Your task to perform on an android device: toggle translation in the chrome app Image 0: 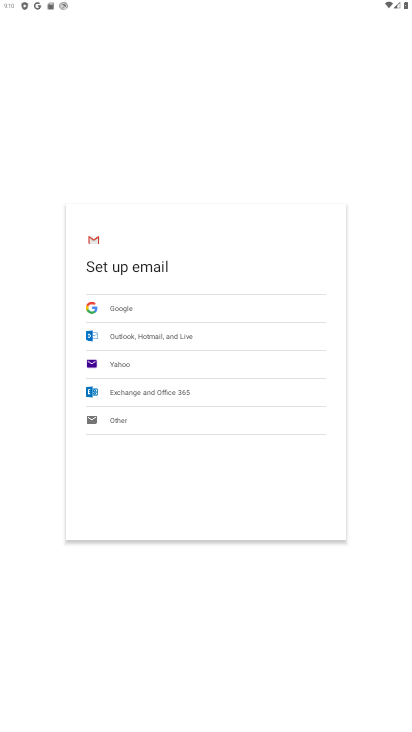
Step 0: press home button
Your task to perform on an android device: toggle translation in the chrome app Image 1: 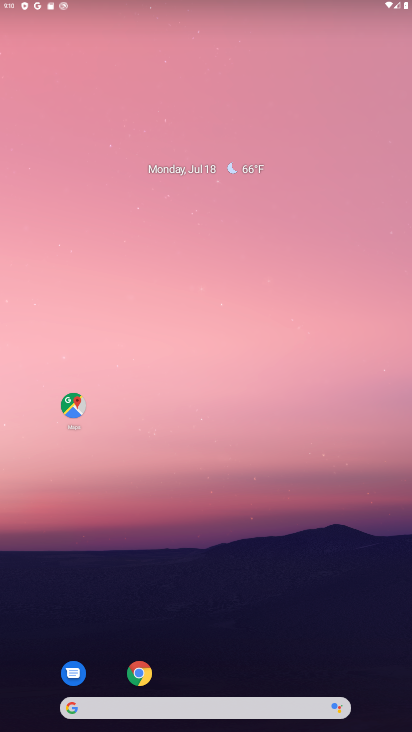
Step 1: drag from (177, 677) to (211, 120)
Your task to perform on an android device: toggle translation in the chrome app Image 2: 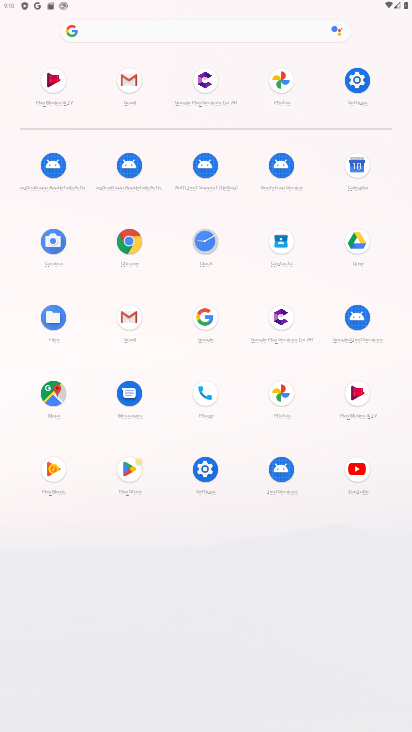
Step 2: click (131, 241)
Your task to perform on an android device: toggle translation in the chrome app Image 3: 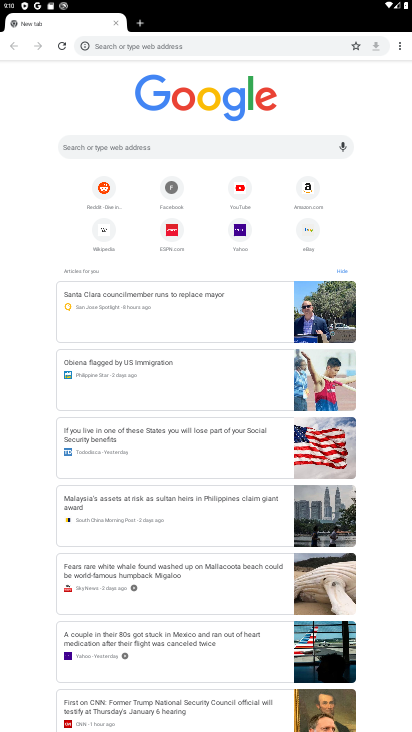
Step 3: click (398, 50)
Your task to perform on an android device: toggle translation in the chrome app Image 4: 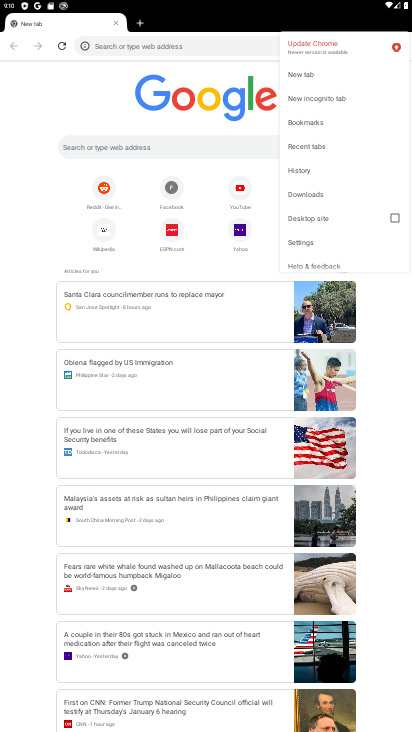
Step 4: click (308, 244)
Your task to perform on an android device: toggle translation in the chrome app Image 5: 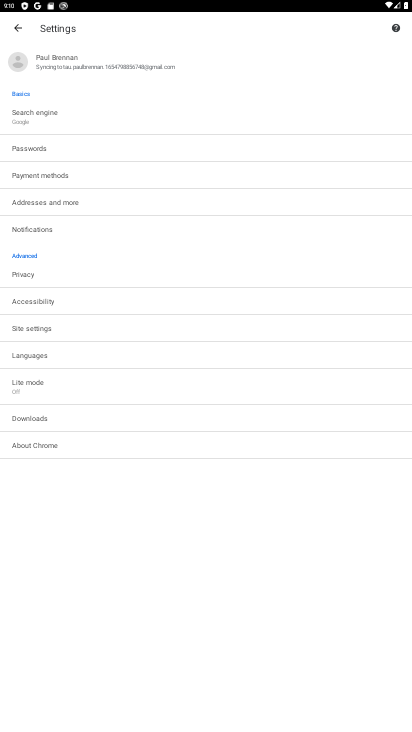
Step 5: click (37, 353)
Your task to perform on an android device: toggle translation in the chrome app Image 6: 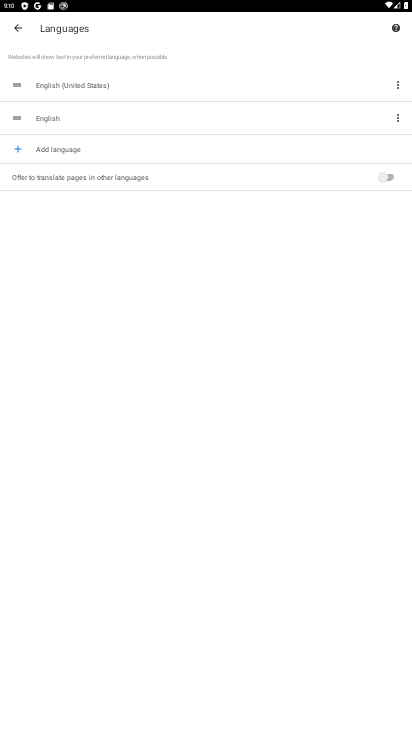
Step 6: click (387, 172)
Your task to perform on an android device: toggle translation in the chrome app Image 7: 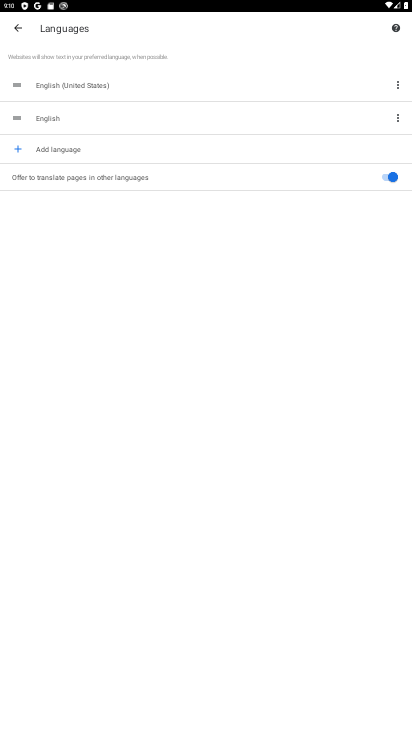
Step 7: task complete